Your task to perform on an android device: check out phone information Image 0: 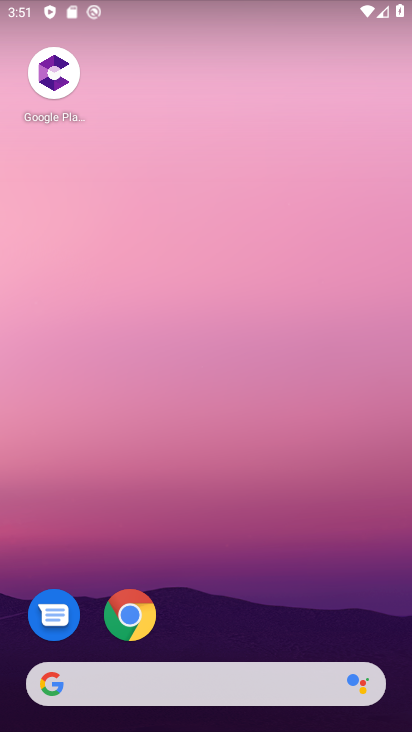
Step 0: drag from (219, 625) to (342, 198)
Your task to perform on an android device: check out phone information Image 1: 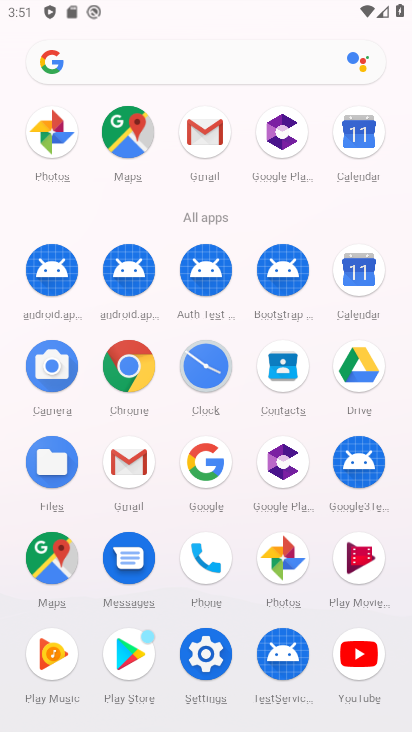
Step 1: click (203, 668)
Your task to perform on an android device: check out phone information Image 2: 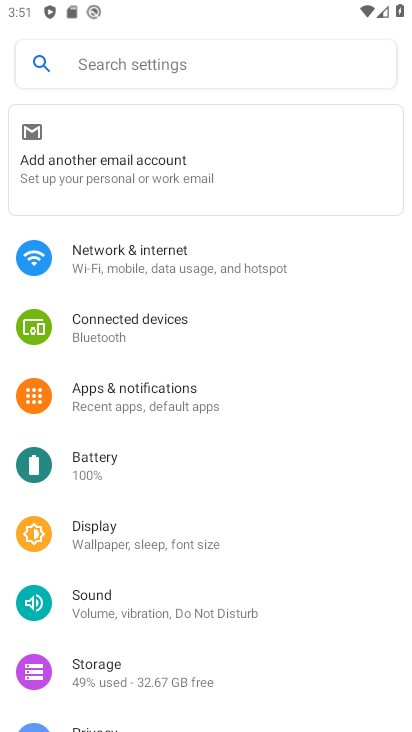
Step 2: drag from (171, 643) to (409, 164)
Your task to perform on an android device: check out phone information Image 3: 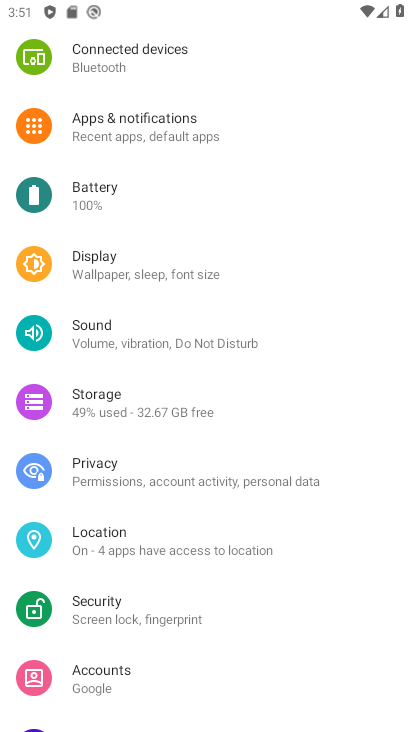
Step 3: drag from (199, 577) to (306, 178)
Your task to perform on an android device: check out phone information Image 4: 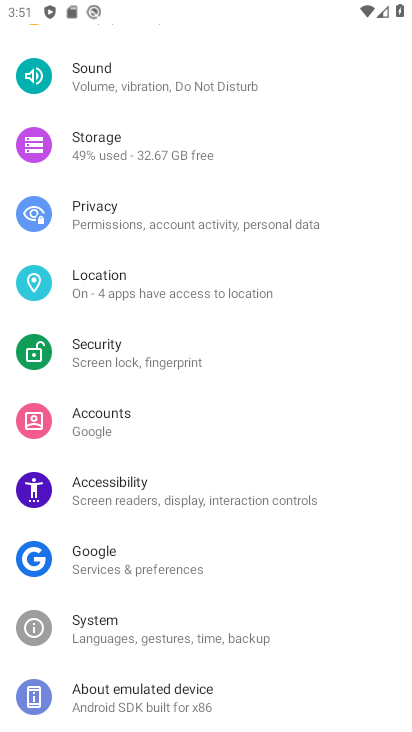
Step 4: click (196, 694)
Your task to perform on an android device: check out phone information Image 5: 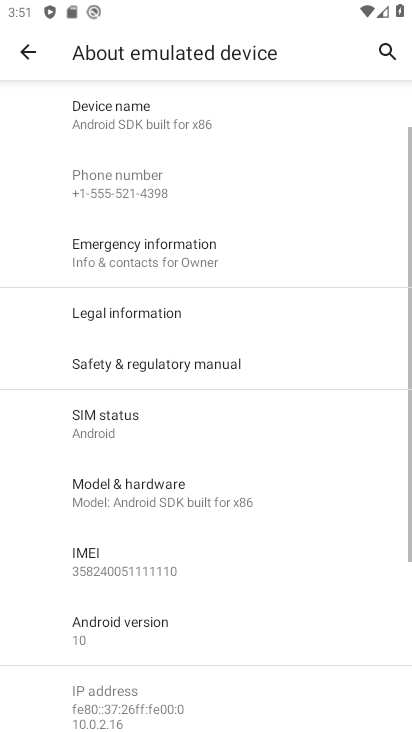
Step 5: click (183, 497)
Your task to perform on an android device: check out phone information Image 6: 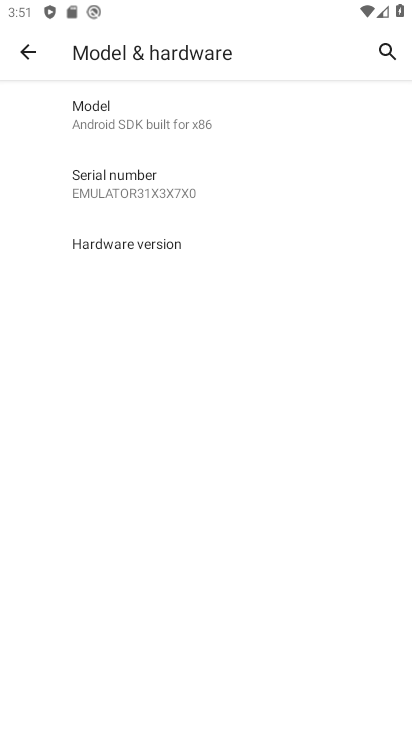
Step 6: task complete